Your task to perform on an android device: Is it going to rain this weekend? Image 0: 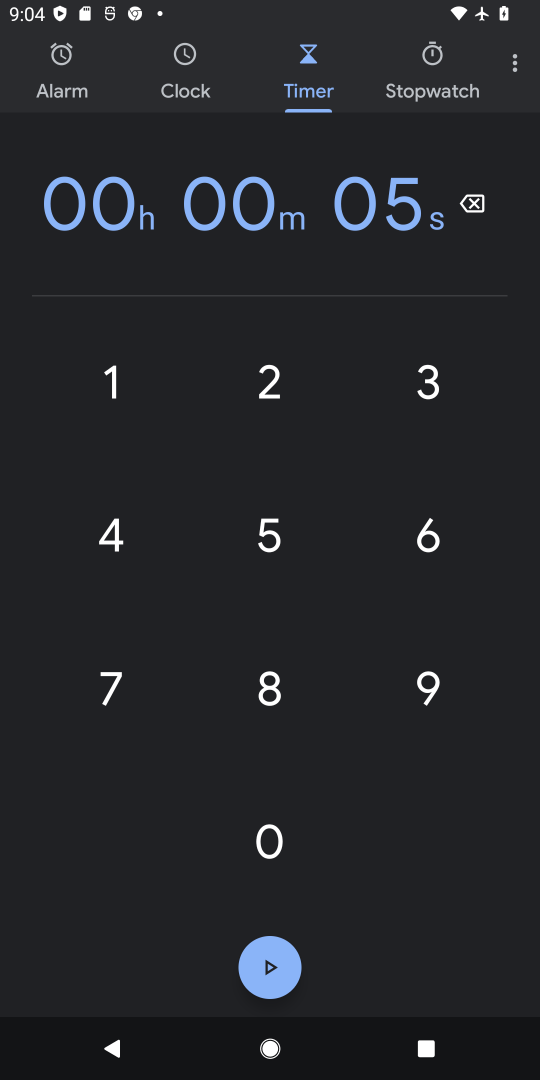
Step 0: press home button
Your task to perform on an android device: Is it going to rain this weekend? Image 1: 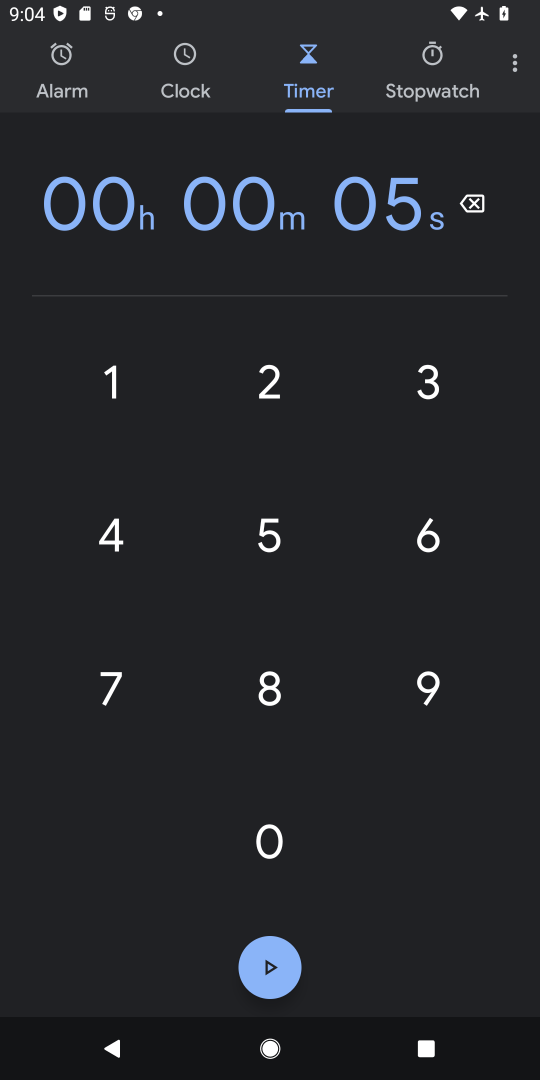
Step 1: press home button
Your task to perform on an android device: Is it going to rain this weekend? Image 2: 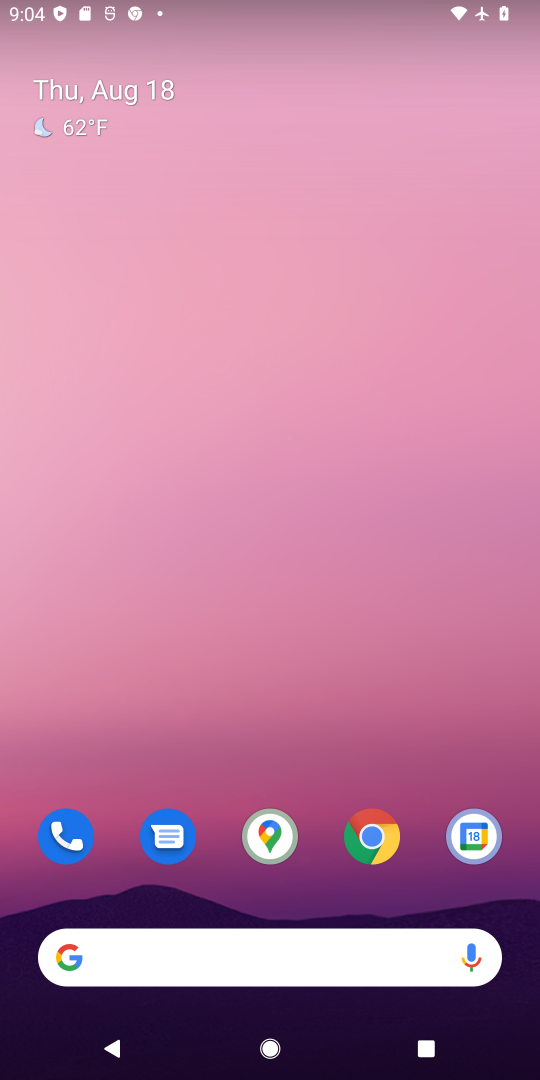
Step 2: drag from (257, 740) to (296, 61)
Your task to perform on an android device: Is it going to rain this weekend? Image 3: 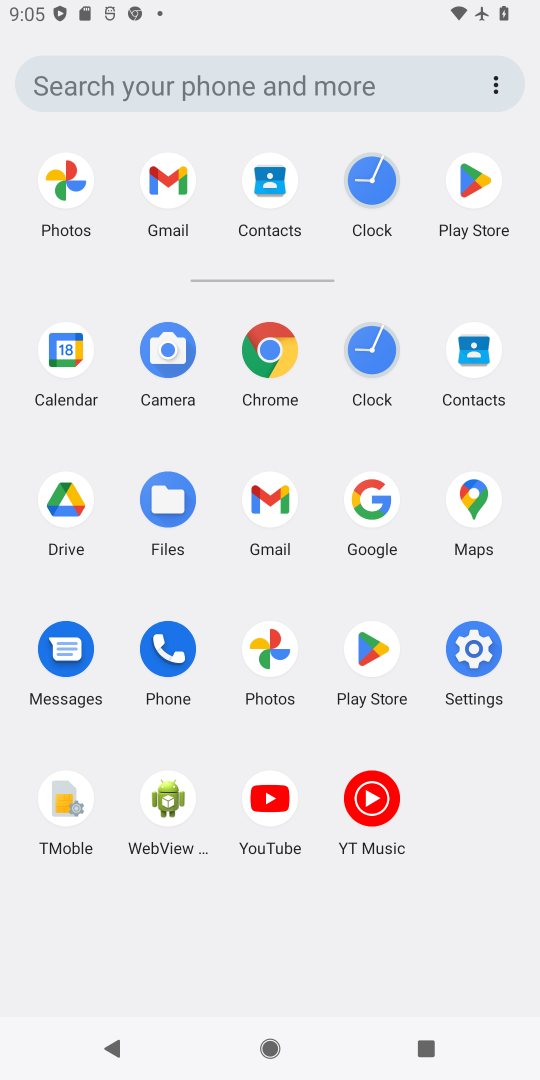
Step 3: press home button
Your task to perform on an android device: Is it going to rain this weekend? Image 4: 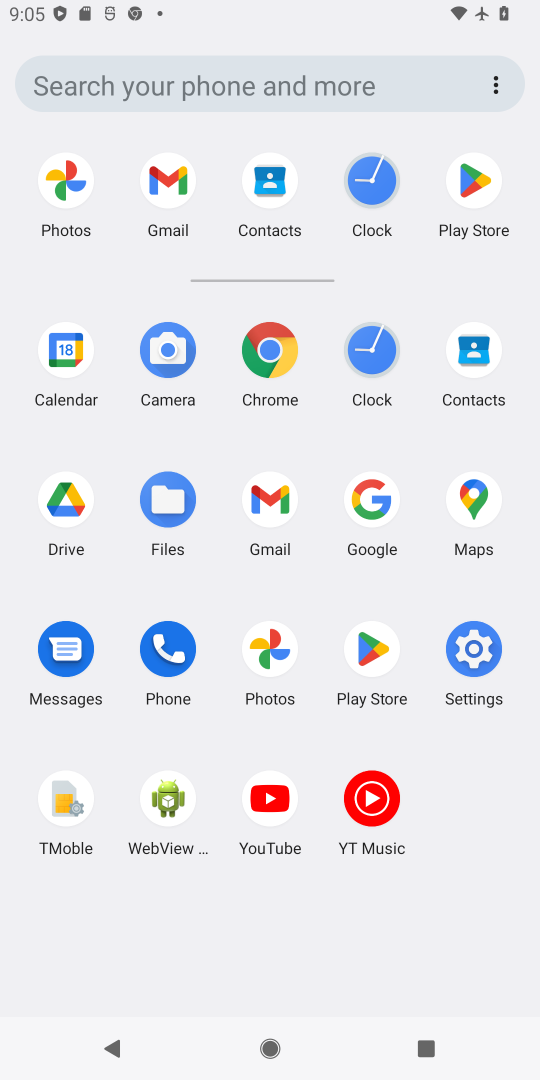
Step 4: press home button
Your task to perform on an android device: Is it going to rain this weekend? Image 5: 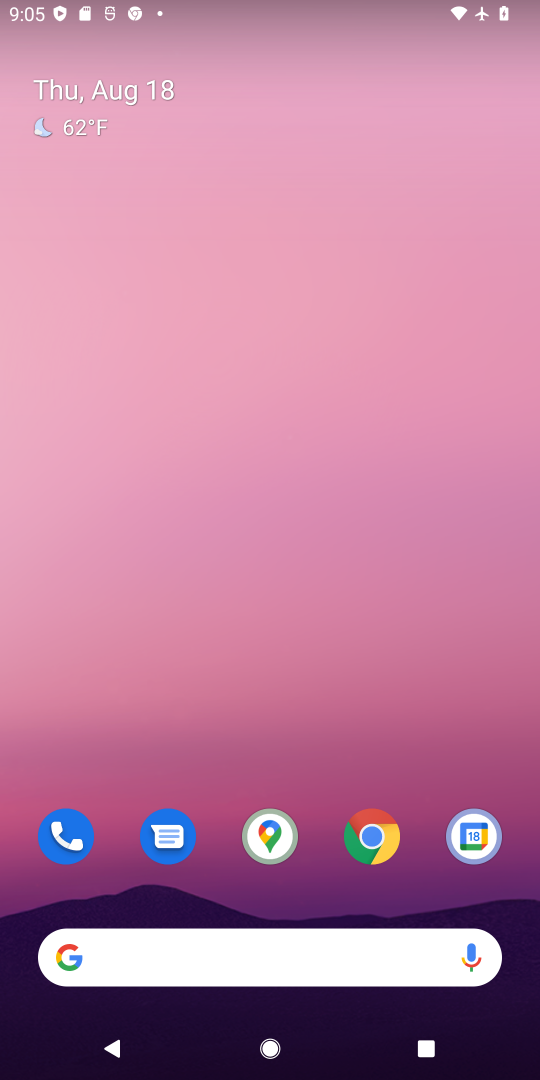
Step 5: click (58, 119)
Your task to perform on an android device: Is it going to rain this weekend? Image 6: 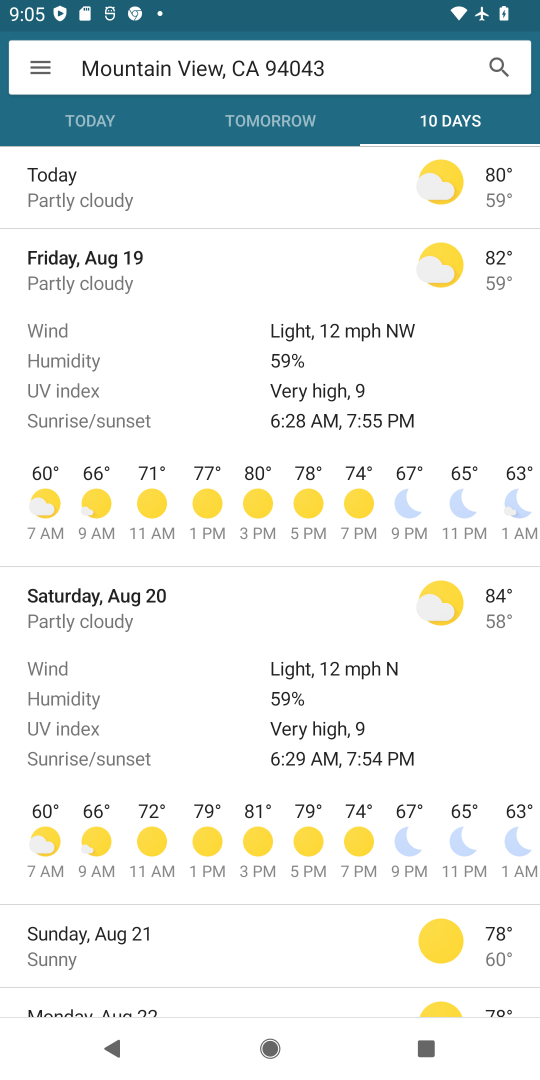
Step 6: task complete